Your task to perform on an android device: open chrome and create a bookmark for the current page Image 0: 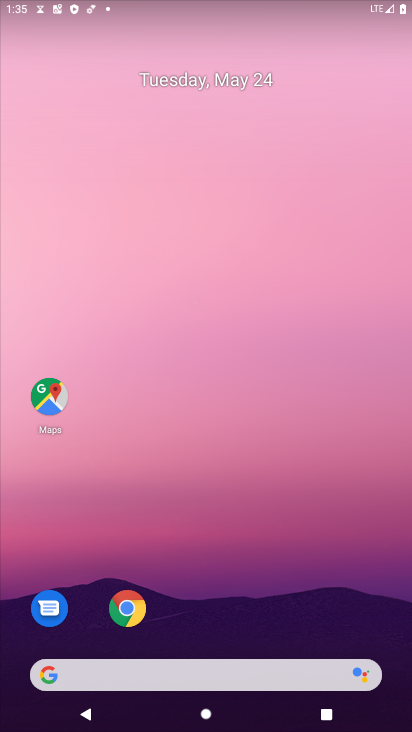
Step 0: drag from (240, 632) to (238, 134)
Your task to perform on an android device: open chrome and create a bookmark for the current page Image 1: 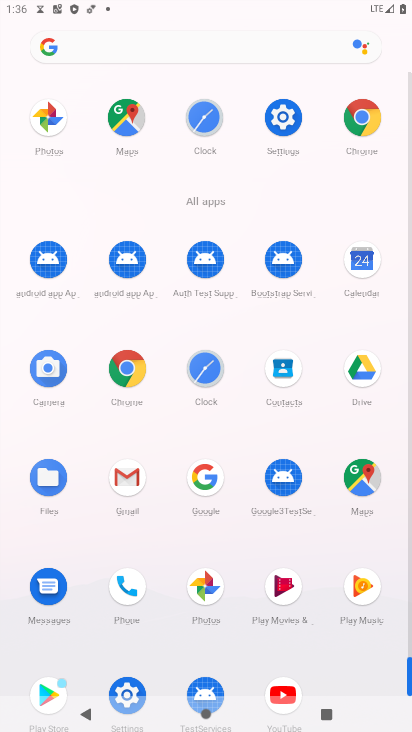
Step 1: click (375, 121)
Your task to perform on an android device: open chrome and create a bookmark for the current page Image 2: 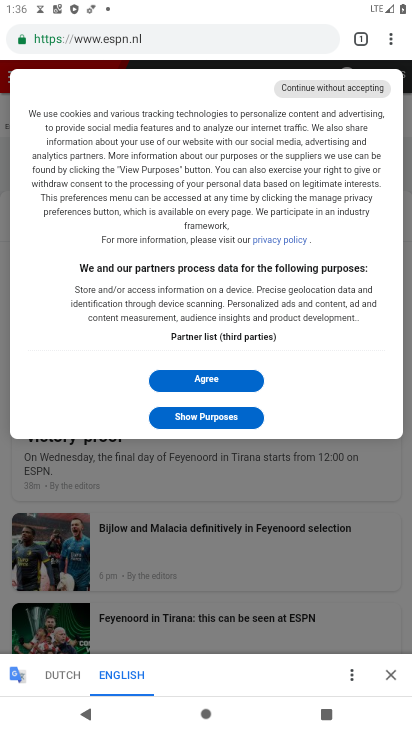
Step 2: click (388, 44)
Your task to perform on an android device: open chrome and create a bookmark for the current page Image 3: 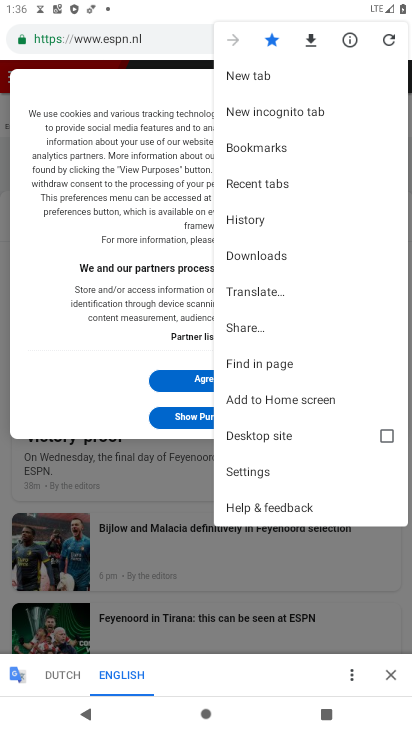
Step 3: task complete